Your task to perform on an android device: When is my next meeting? Image 0: 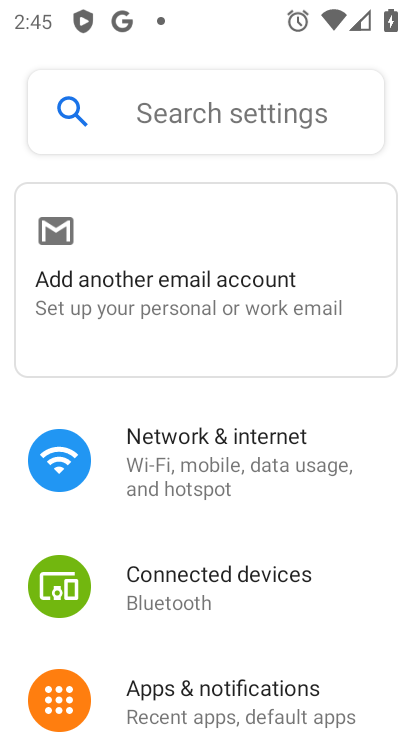
Step 0: press home button
Your task to perform on an android device: When is my next meeting? Image 1: 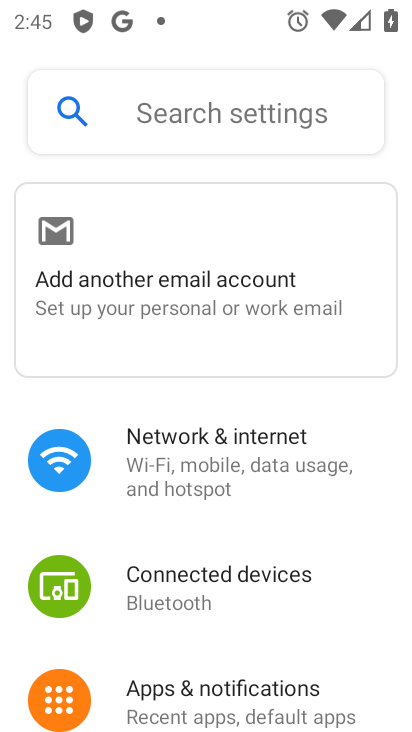
Step 1: click (314, 472)
Your task to perform on an android device: When is my next meeting? Image 2: 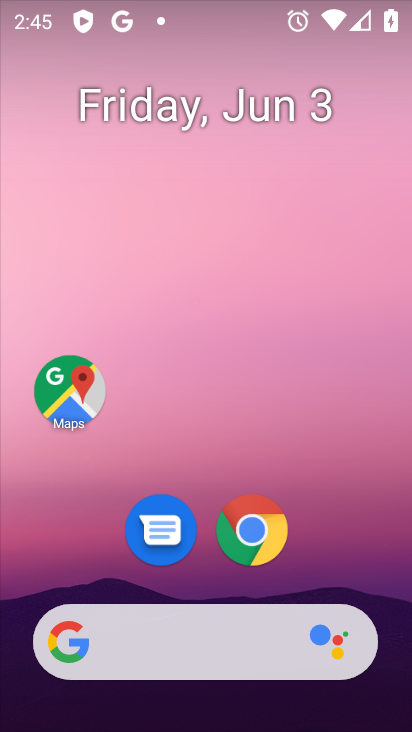
Step 2: drag from (112, 731) to (95, 104)
Your task to perform on an android device: When is my next meeting? Image 3: 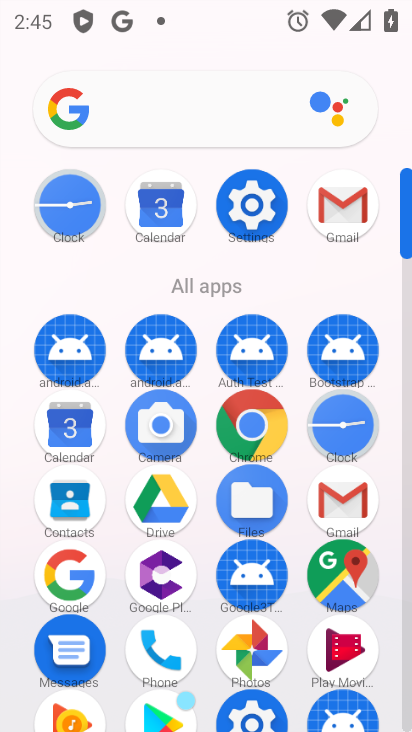
Step 3: click (56, 443)
Your task to perform on an android device: When is my next meeting? Image 4: 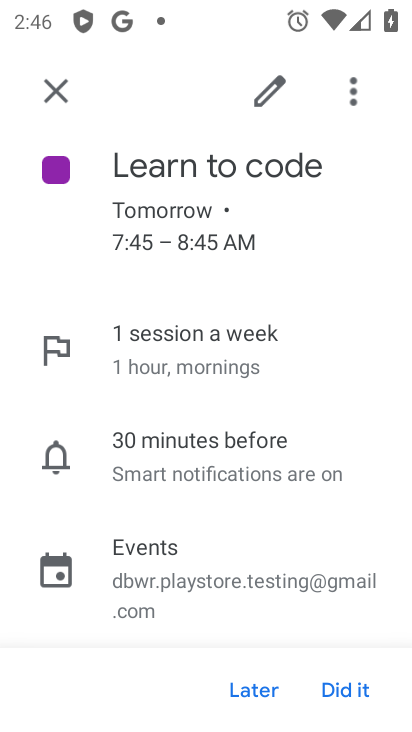
Step 4: task complete